Your task to perform on an android device: change keyboard looks Image 0: 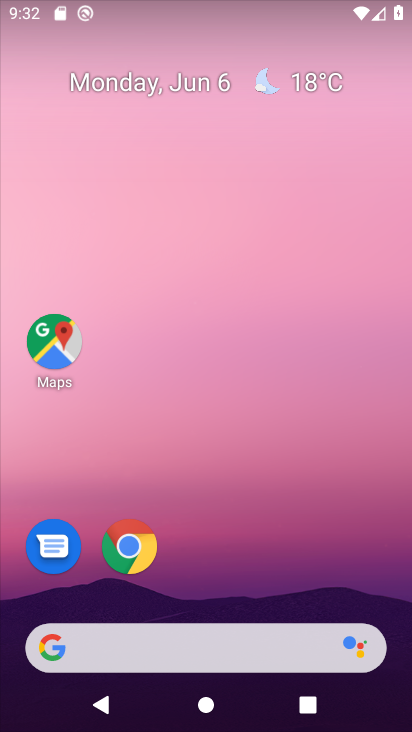
Step 0: drag from (374, 590) to (299, 26)
Your task to perform on an android device: change keyboard looks Image 1: 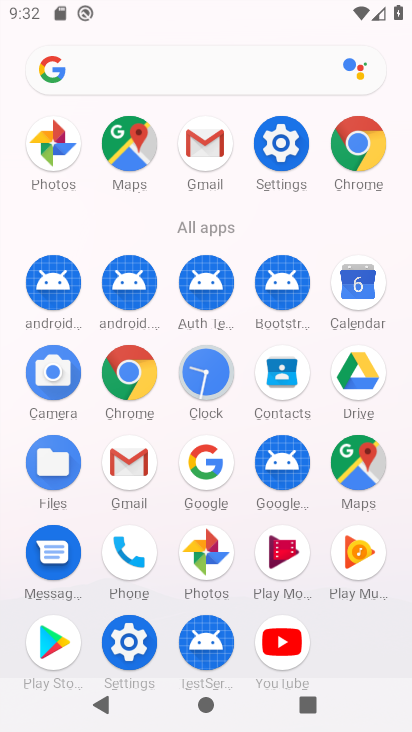
Step 1: click (128, 645)
Your task to perform on an android device: change keyboard looks Image 2: 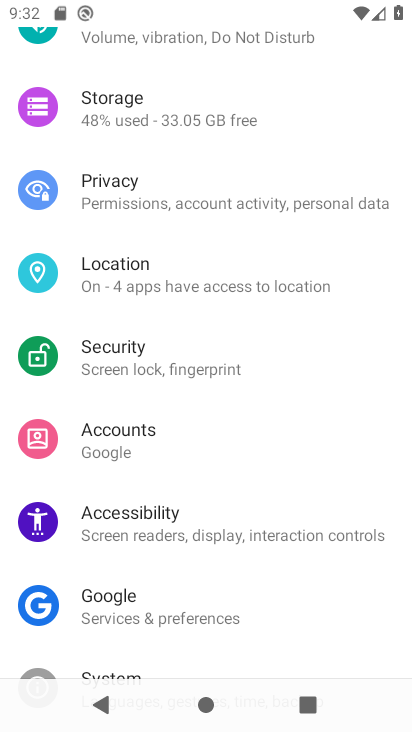
Step 2: drag from (327, 628) to (330, 260)
Your task to perform on an android device: change keyboard looks Image 3: 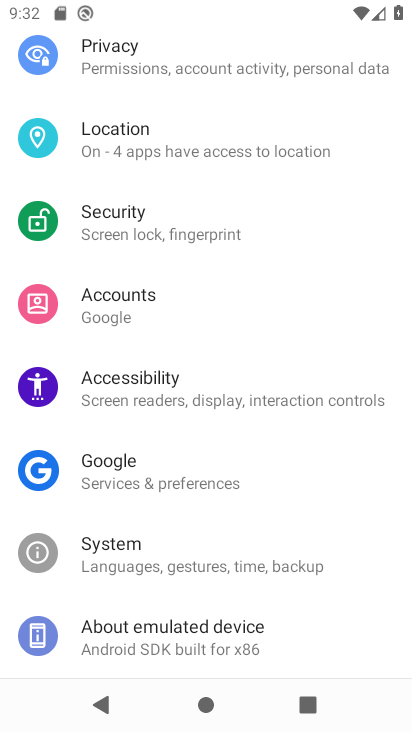
Step 3: click (164, 553)
Your task to perform on an android device: change keyboard looks Image 4: 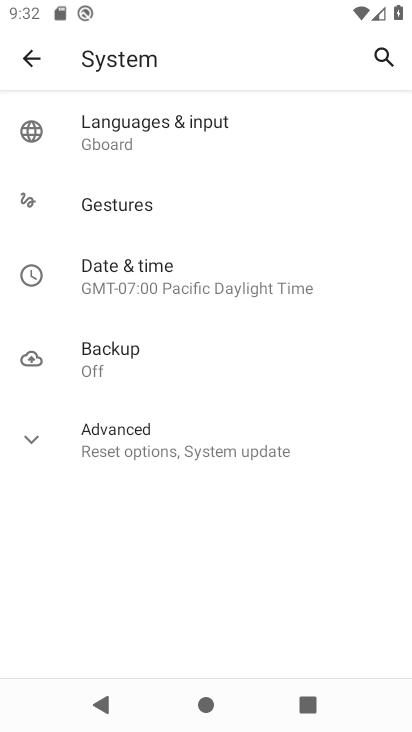
Step 4: click (148, 127)
Your task to perform on an android device: change keyboard looks Image 5: 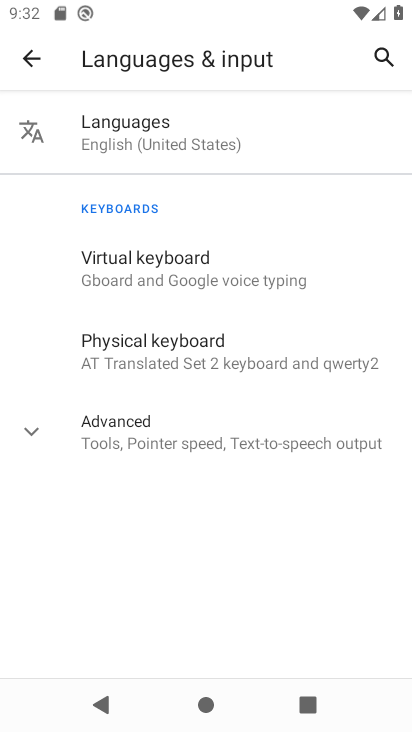
Step 5: click (133, 356)
Your task to perform on an android device: change keyboard looks Image 6: 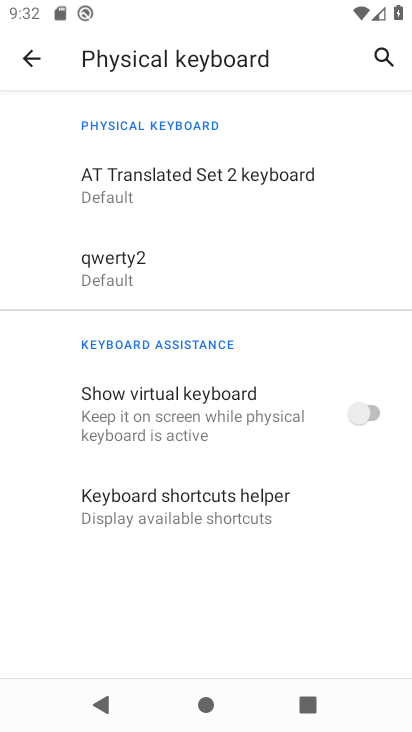
Step 6: click (124, 265)
Your task to perform on an android device: change keyboard looks Image 7: 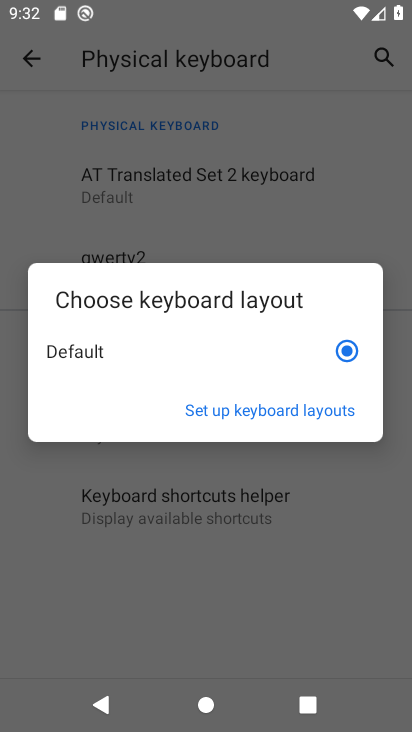
Step 7: click (269, 416)
Your task to perform on an android device: change keyboard looks Image 8: 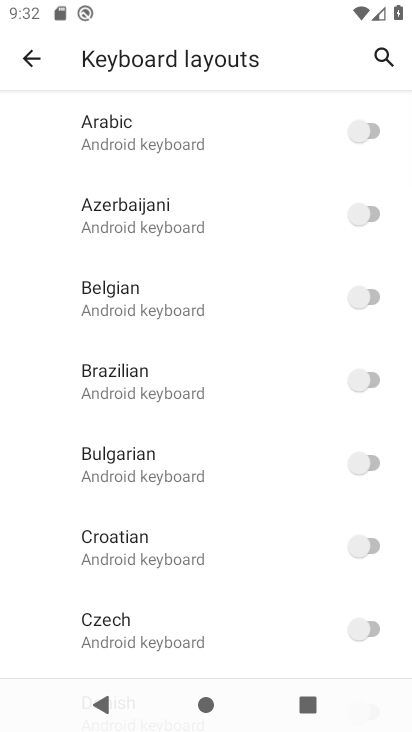
Step 8: drag from (259, 586) to (263, 163)
Your task to perform on an android device: change keyboard looks Image 9: 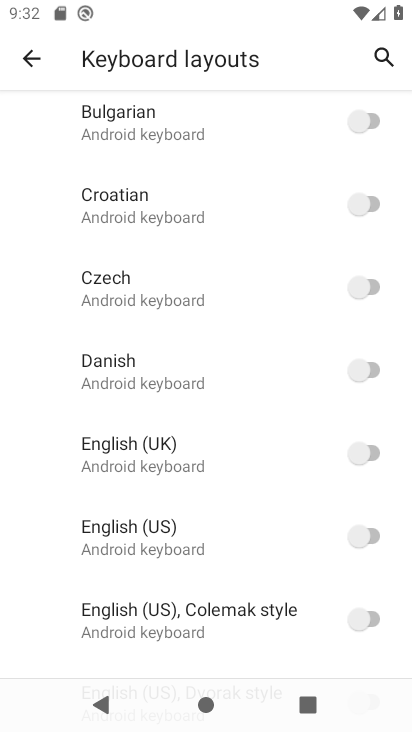
Step 9: click (365, 452)
Your task to perform on an android device: change keyboard looks Image 10: 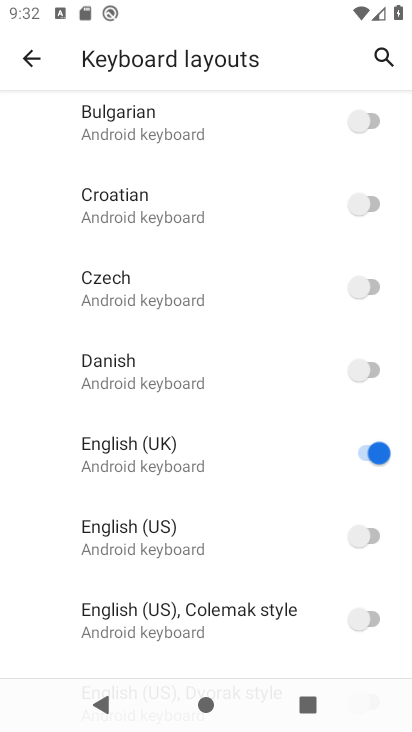
Step 10: task complete